Your task to perform on an android device: Open the stopwatch Image 0: 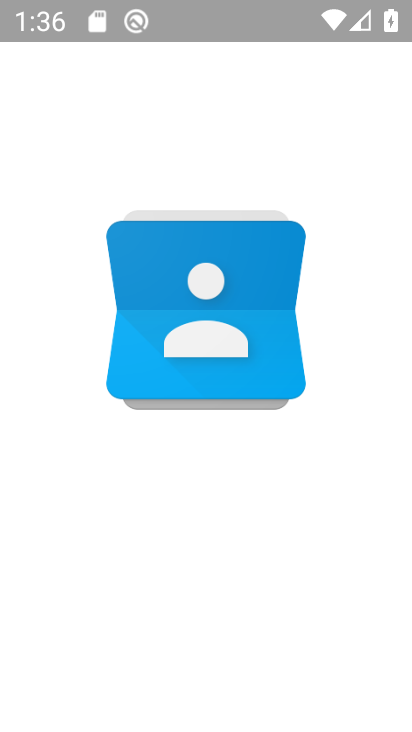
Step 0: drag from (164, 550) to (228, 203)
Your task to perform on an android device: Open the stopwatch Image 1: 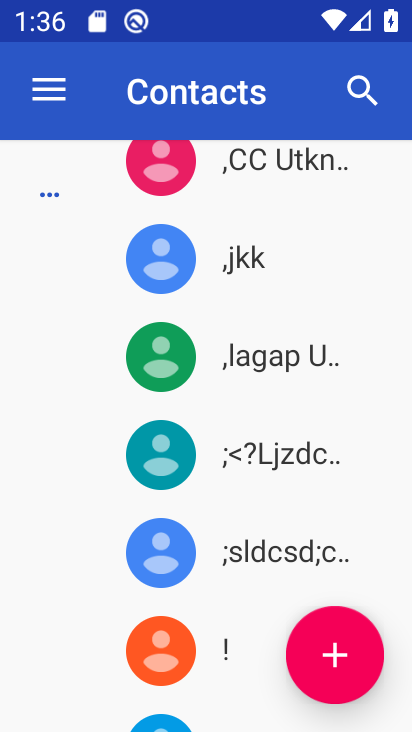
Step 1: press home button
Your task to perform on an android device: Open the stopwatch Image 2: 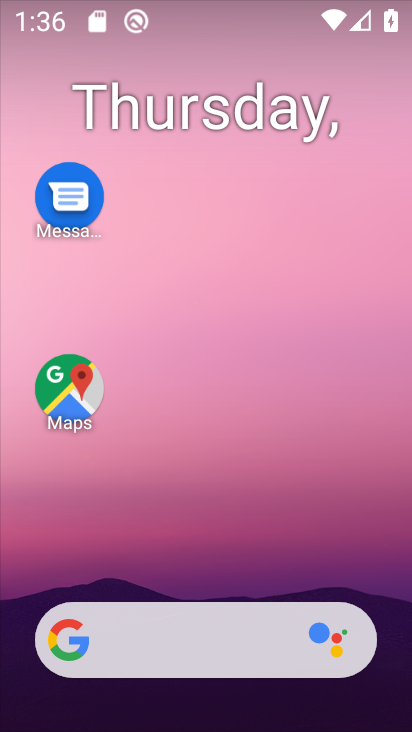
Step 2: drag from (189, 585) to (263, 160)
Your task to perform on an android device: Open the stopwatch Image 3: 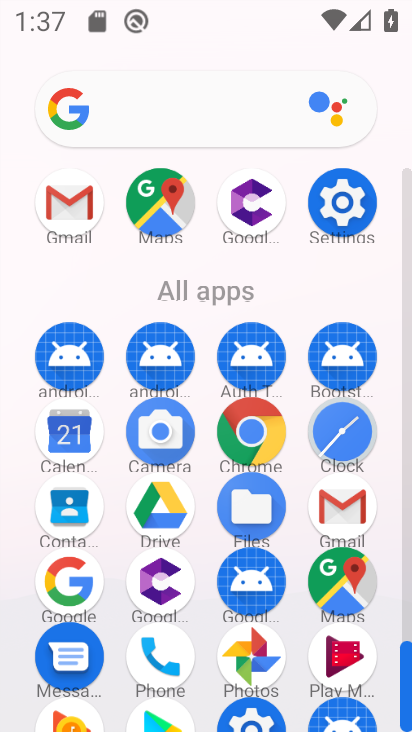
Step 3: click (341, 440)
Your task to perform on an android device: Open the stopwatch Image 4: 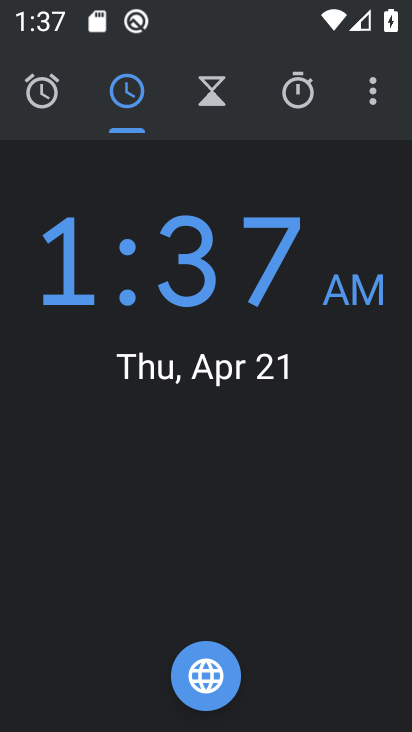
Step 4: click (301, 97)
Your task to perform on an android device: Open the stopwatch Image 5: 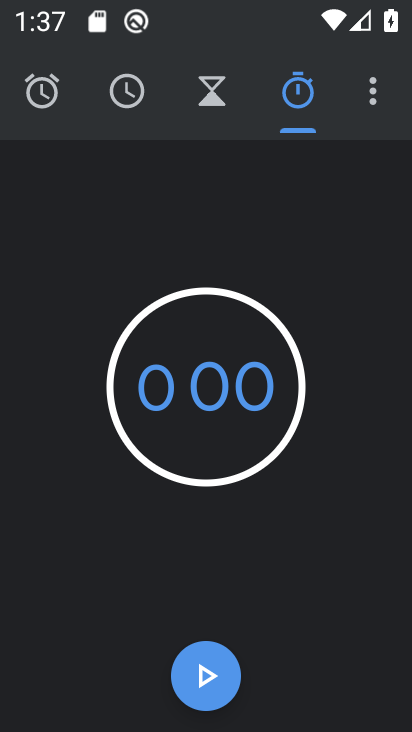
Step 5: task complete